Your task to perform on an android device: turn off smart reply in the gmail app Image 0: 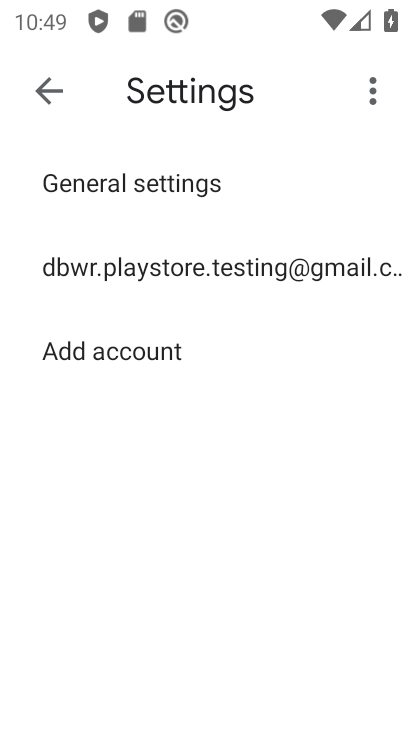
Step 0: press home button
Your task to perform on an android device: turn off smart reply in the gmail app Image 1: 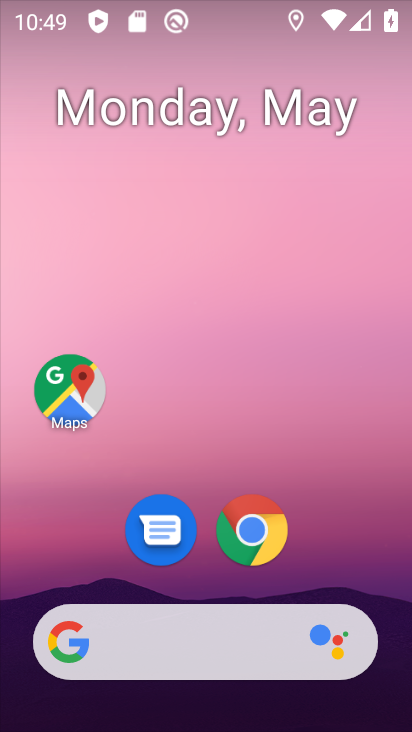
Step 1: drag from (317, 564) to (240, 145)
Your task to perform on an android device: turn off smart reply in the gmail app Image 2: 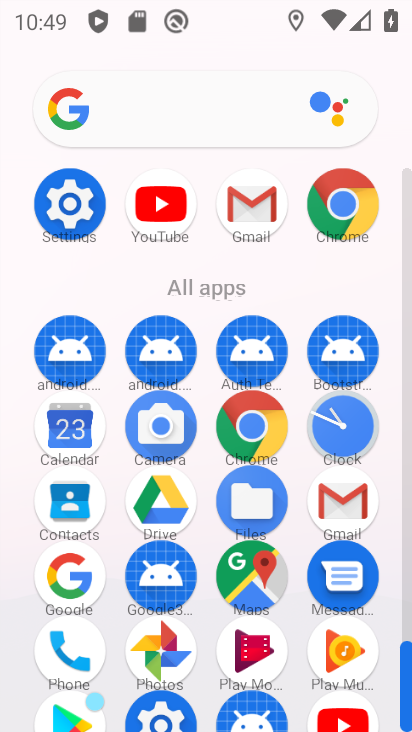
Step 2: click (252, 201)
Your task to perform on an android device: turn off smart reply in the gmail app Image 3: 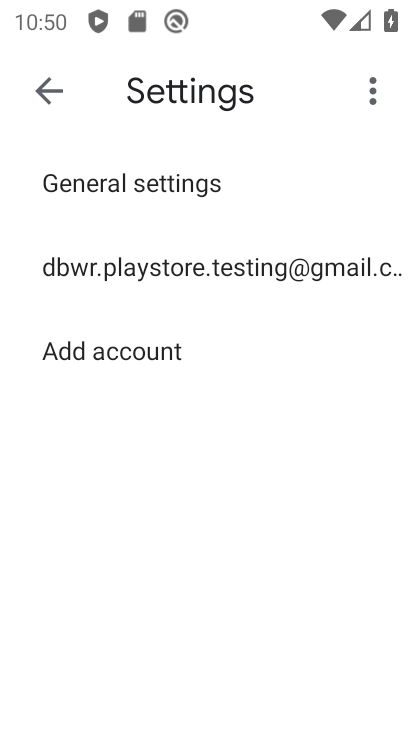
Step 3: click (201, 264)
Your task to perform on an android device: turn off smart reply in the gmail app Image 4: 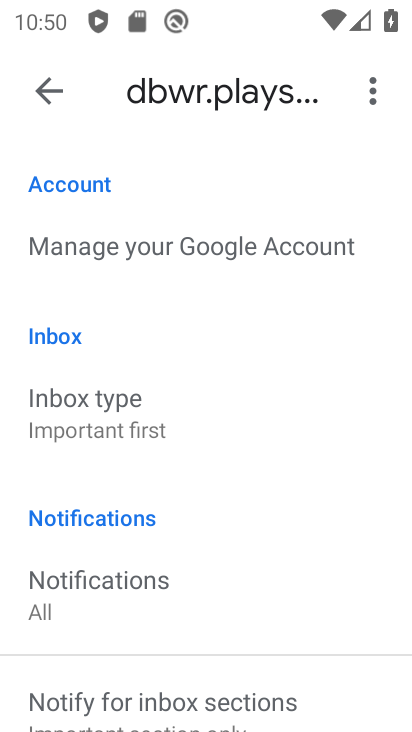
Step 4: drag from (180, 467) to (226, 343)
Your task to perform on an android device: turn off smart reply in the gmail app Image 5: 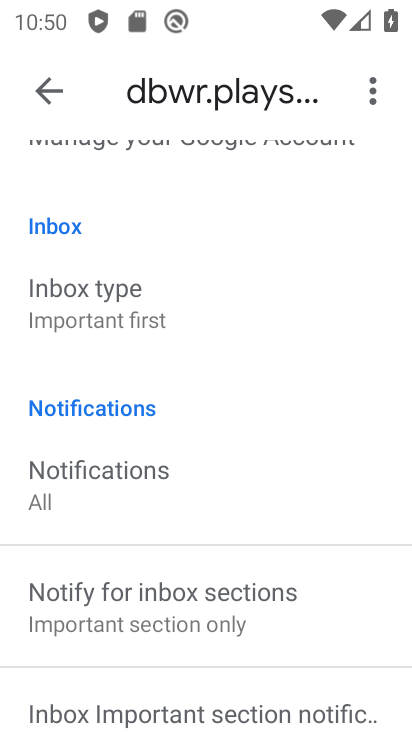
Step 5: drag from (169, 500) to (209, 387)
Your task to perform on an android device: turn off smart reply in the gmail app Image 6: 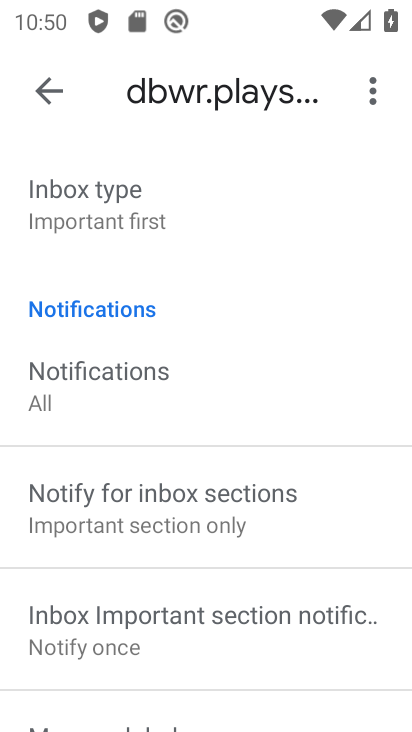
Step 6: drag from (138, 550) to (215, 413)
Your task to perform on an android device: turn off smart reply in the gmail app Image 7: 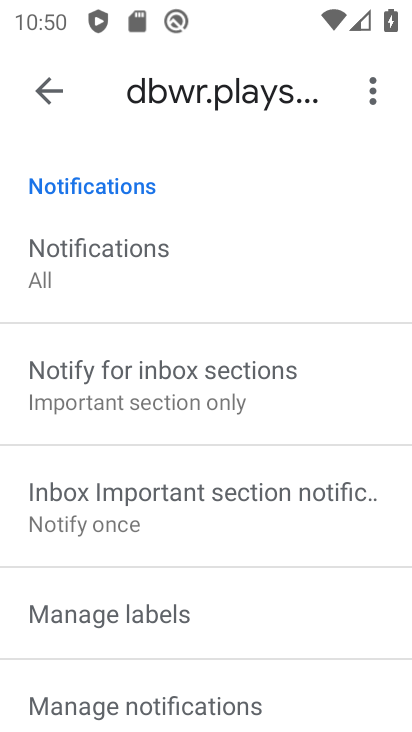
Step 7: drag from (151, 552) to (220, 428)
Your task to perform on an android device: turn off smart reply in the gmail app Image 8: 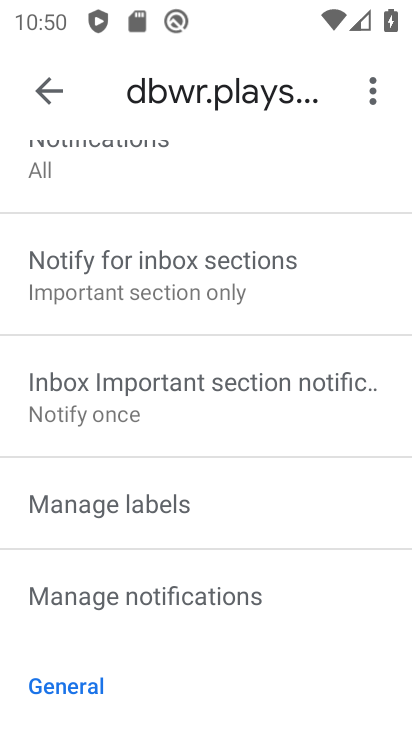
Step 8: drag from (134, 531) to (224, 360)
Your task to perform on an android device: turn off smart reply in the gmail app Image 9: 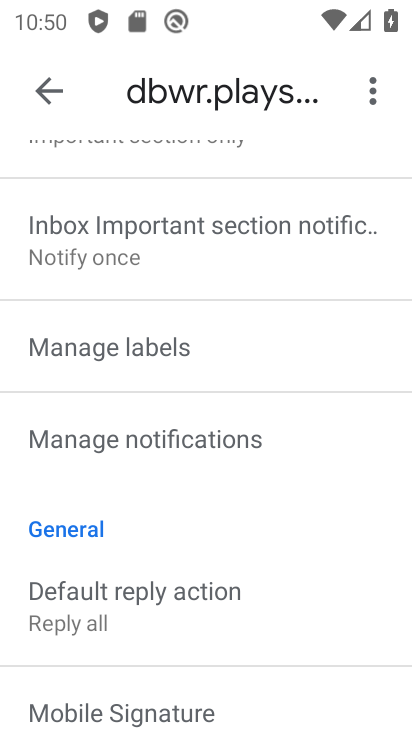
Step 9: drag from (136, 504) to (208, 341)
Your task to perform on an android device: turn off smart reply in the gmail app Image 10: 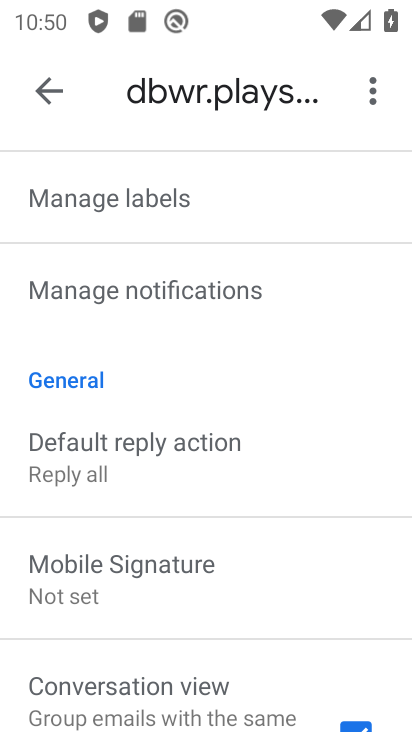
Step 10: drag from (132, 498) to (222, 299)
Your task to perform on an android device: turn off smart reply in the gmail app Image 11: 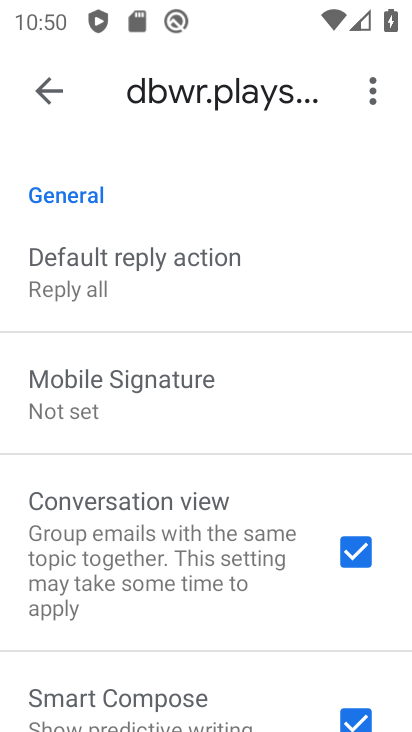
Step 11: drag from (137, 466) to (242, 285)
Your task to perform on an android device: turn off smart reply in the gmail app Image 12: 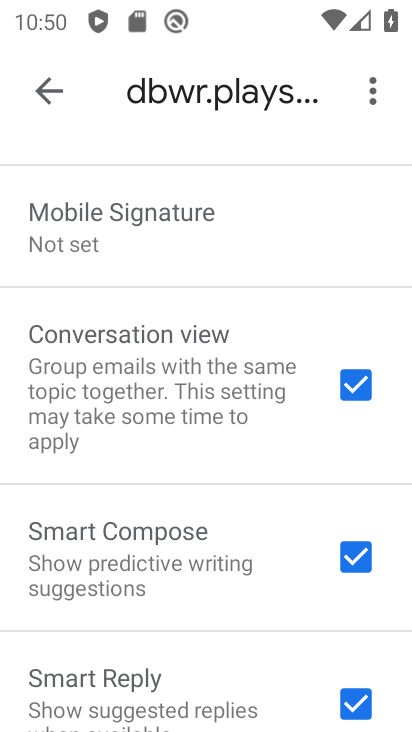
Step 12: drag from (158, 595) to (203, 426)
Your task to perform on an android device: turn off smart reply in the gmail app Image 13: 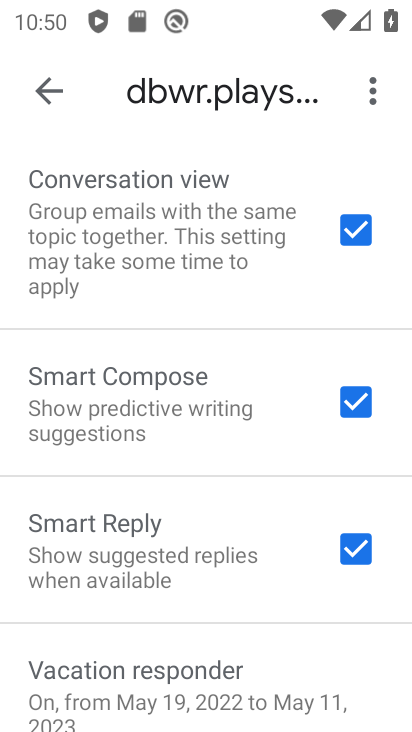
Step 13: click (359, 547)
Your task to perform on an android device: turn off smart reply in the gmail app Image 14: 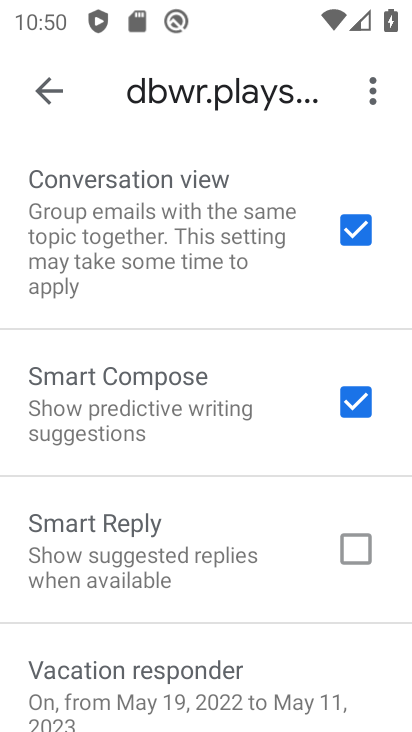
Step 14: task complete